Your task to perform on an android device: turn on notifications settings in the gmail app Image 0: 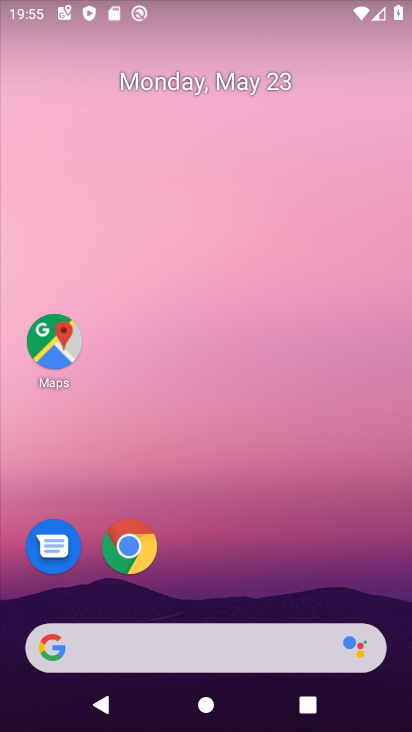
Step 0: drag from (377, 604) to (357, 270)
Your task to perform on an android device: turn on notifications settings in the gmail app Image 1: 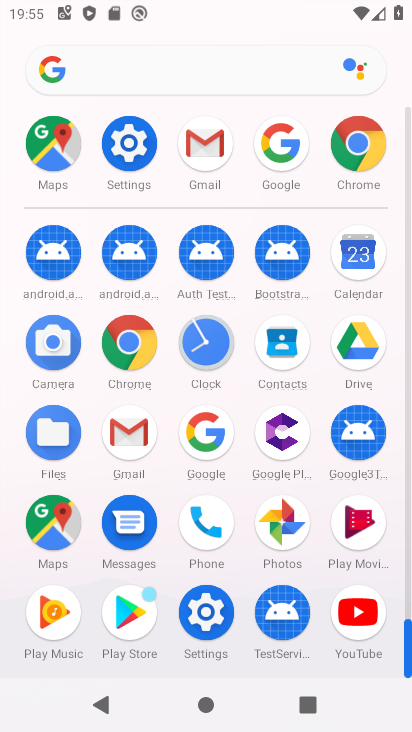
Step 1: click (124, 438)
Your task to perform on an android device: turn on notifications settings in the gmail app Image 2: 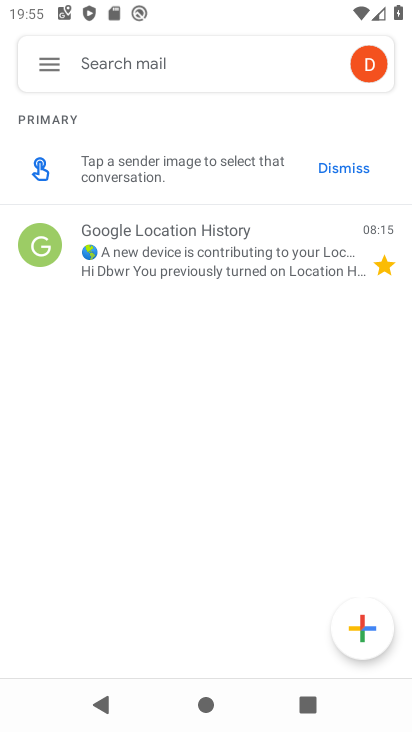
Step 2: click (45, 63)
Your task to perform on an android device: turn on notifications settings in the gmail app Image 3: 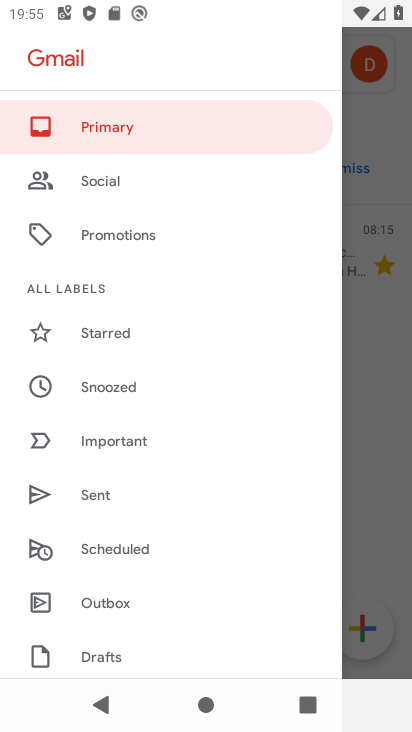
Step 3: drag from (247, 548) to (259, 389)
Your task to perform on an android device: turn on notifications settings in the gmail app Image 4: 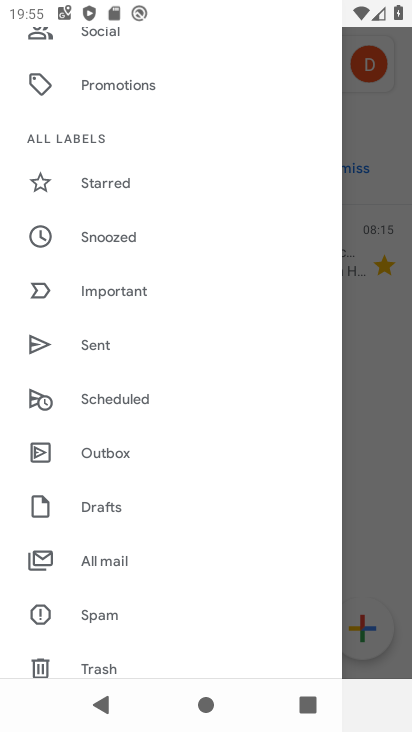
Step 4: drag from (266, 603) to (271, 439)
Your task to perform on an android device: turn on notifications settings in the gmail app Image 5: 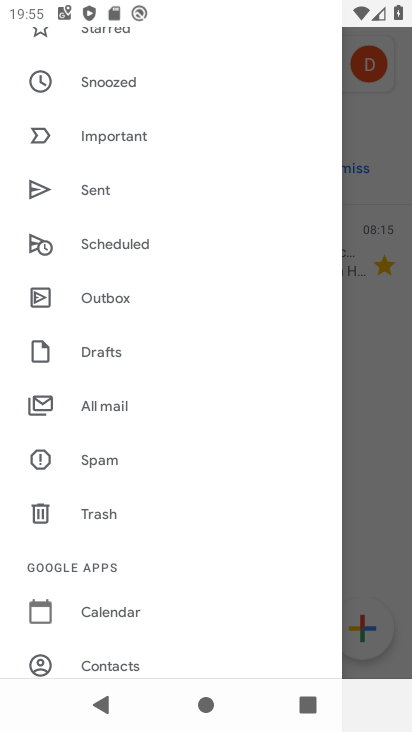
Step 5: drag from (263, 616) to (271, 497)
Your task to perform on an android device: turn on notifications settings in the gmail app Image 6: 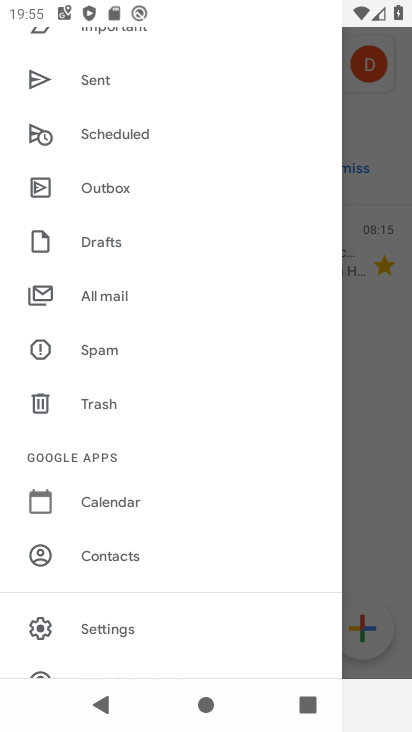
Step 6: drag from (265, 636) to (272, 489)
Your task to perform on an android device: turn on notifications settings in the gmail app Image 7: 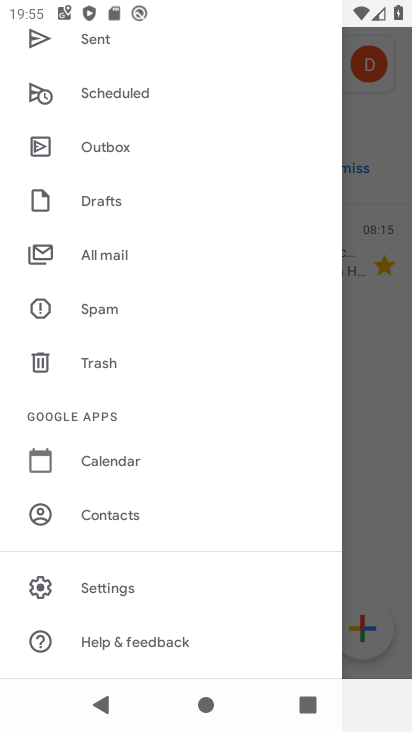
Step 7: click (152, 586)
Your task to perform on an android device: turn on notifications settings in the gmail app Image 8: 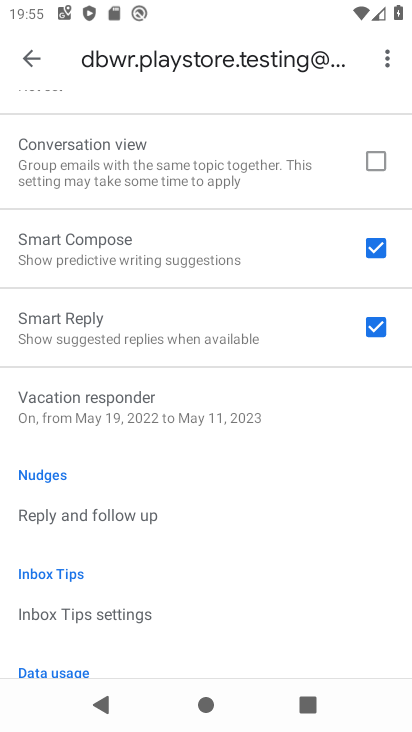
Step 8: drag from (300, 615) to (307, 512)
Your task to perform on an android device: turn on notifications settings in the gmail app Image 9: 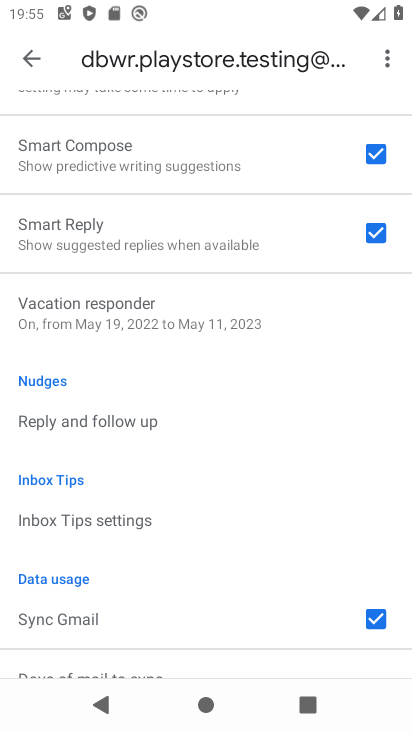
Step 9: drag from (295, 610) to (298, 492)
Your task to perform on an android device: turn on notifications settings in the gmail app Image 10: 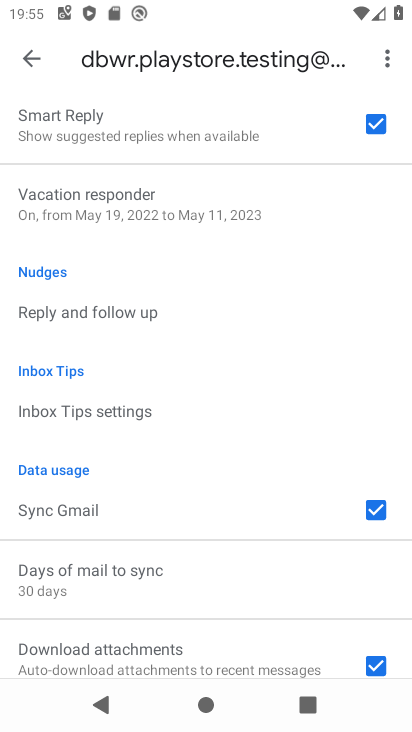
Step 10: drag from (295, 629) to (289, 481)
Your task to perform on an android device: turn on notifications settings in the gmail app Image 11: 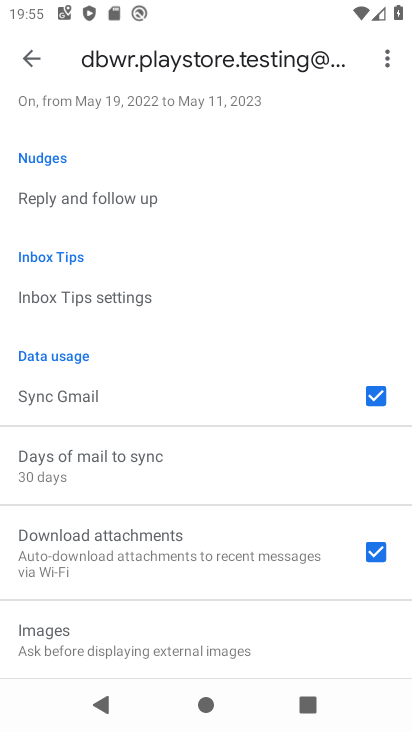
Step 11: drag from (310, 648) to (313, 520)
Your task to perform on an android device: turn on notifications settings in the gmail app Image 12: 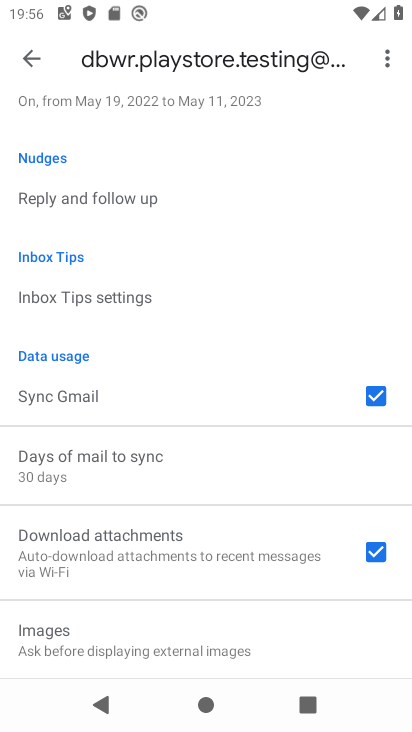
Step 12: drag from (317, 360) to (300, 498)
Your task to perform on an android device: turn on notifications settings in the gmail app Image 13: 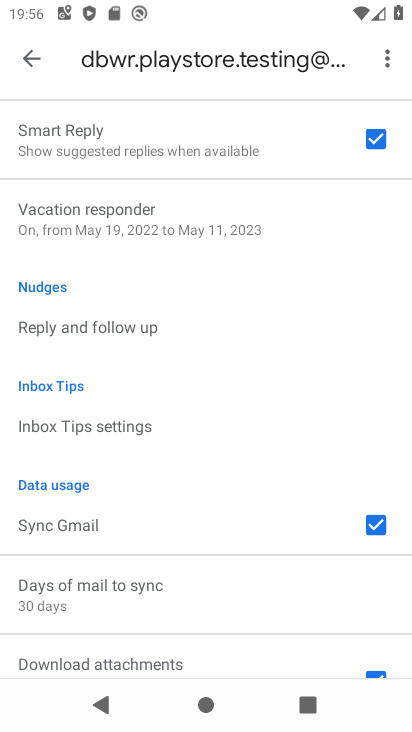
Step 13: drag from (299, 331) to (302, 482)
Your task to perform on an android device: turn on notifications settings in the gmail app Image 14: 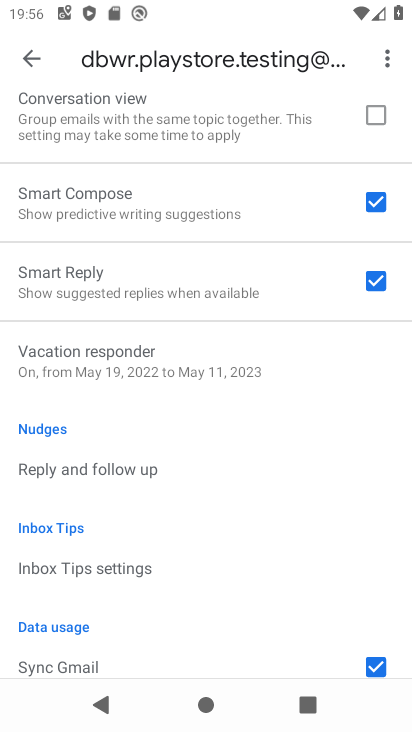
Step 14: drag from (294, 291) to (287, 408)
Your task to perform on an android device: turn on notifications settings in the gmail app Image 15: 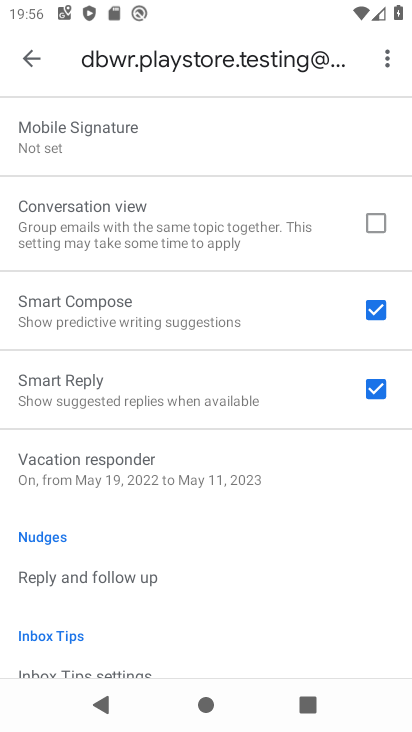
Step 15: drag from (304, 266) to (305, 388)
Your task to perform on an android device: turn on notifications settings in the gmail app Image 16: 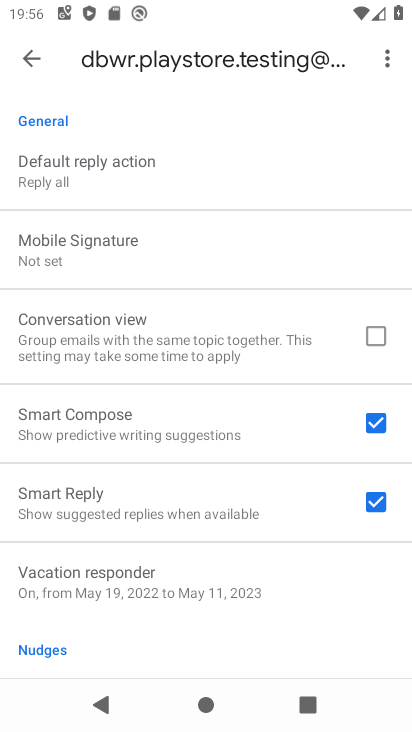
Step 16: drag from (295, 249) to (286, 363)
Your task to perform on an android device: turn on notifications settings in the gmail app Image 17: 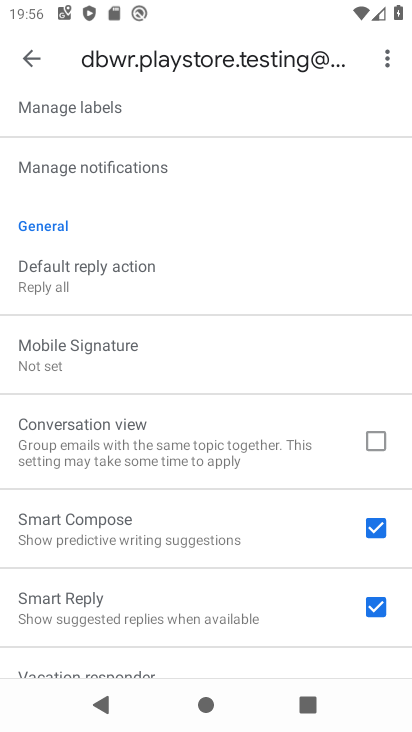
Step 17: drag from (276, 255) to (276, 350)
Your task to perform on an android device: turn on notifications settings in the gmail app Image 18: 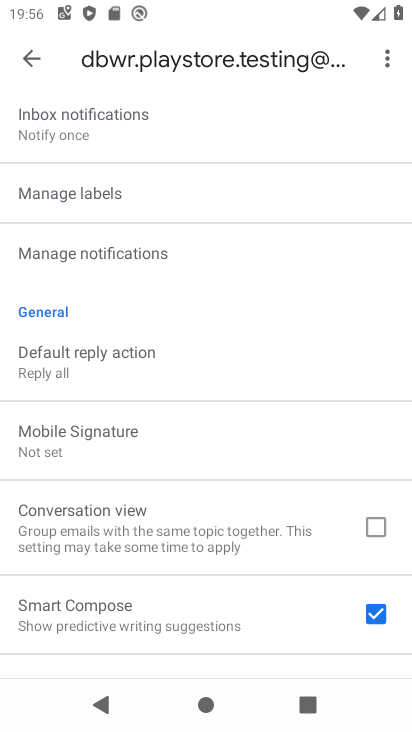
Step 18: drag from (276, 242) to (277, 368)
Your task to perform on an android device: turn on notifications settings in the gmail app Image 19: 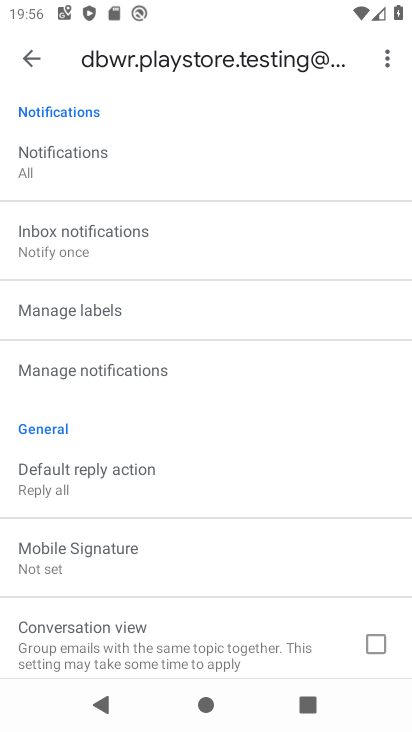
Step 19: click (192, 372)
Your task to perform on an android device: turn on notifications settings in the gmail app Image 20: 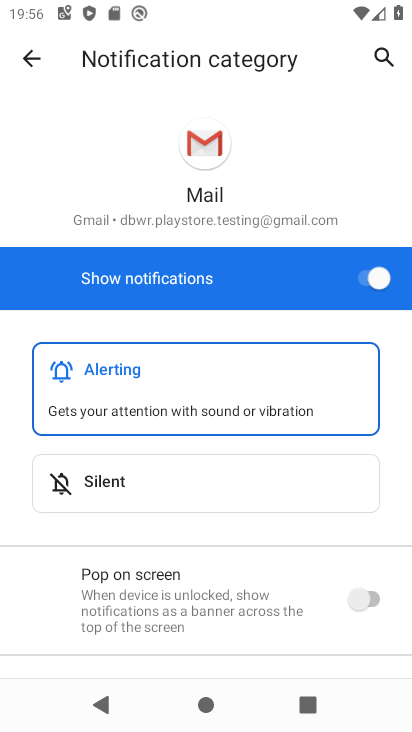
Step 20: task complete